Your task to perform on an android device: open chrome and create a bookmark for the current page Image 0: 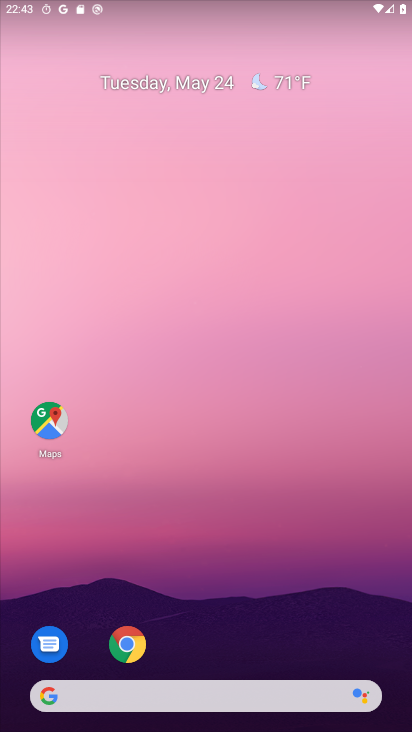
Step 0: click (121, 643)
Your task to perform on an android device: open chrome and create a bookmark for the current page Image 1: 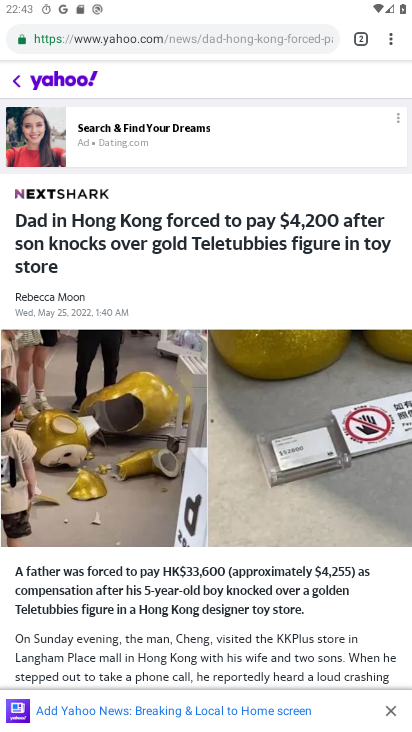
Step 1: click (391, 38)
Your task to perform on an android device: open chrome and create a bookmark for the current page Image 2: 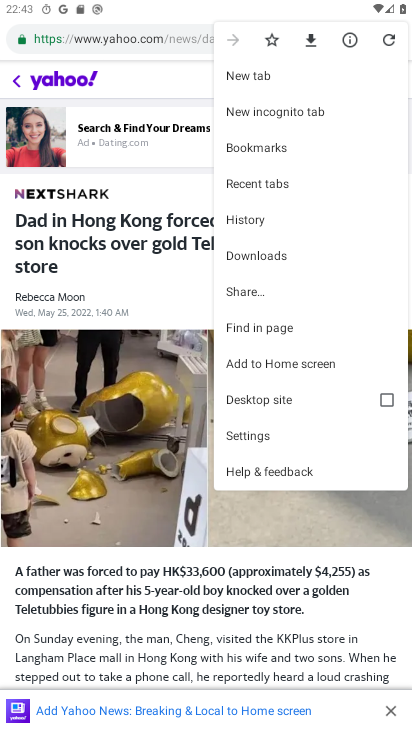
Step 2: click (266, 32)
Your task to perform on an android device: open chrome and create a bookmark for the current page Image 3: 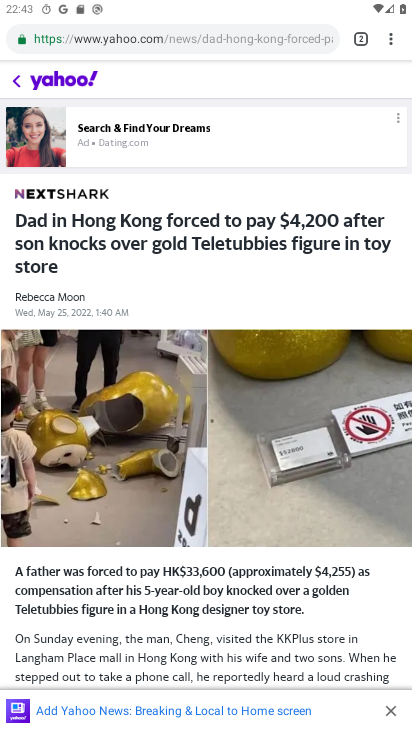
Step 3: task complete